Your task to perform on an android device: Open Google Chrome and click the shortcut for Amazon.com Image 0: 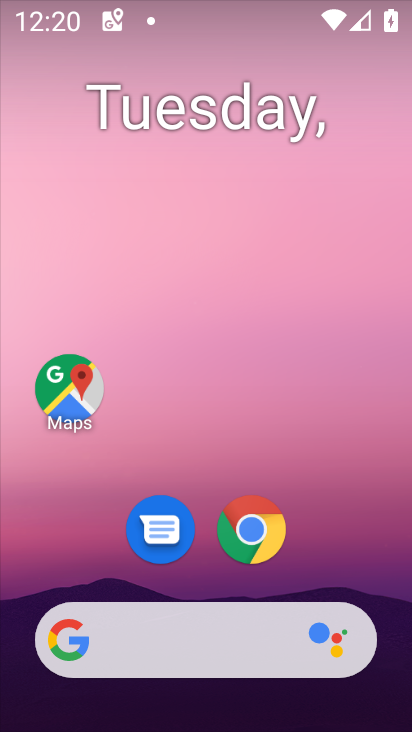
Step 0: drag from (237, 679) to (308, 204)
Your task to perform on an android device: Open Google Chrome and click the shortcut for Amazon.com Image 1: 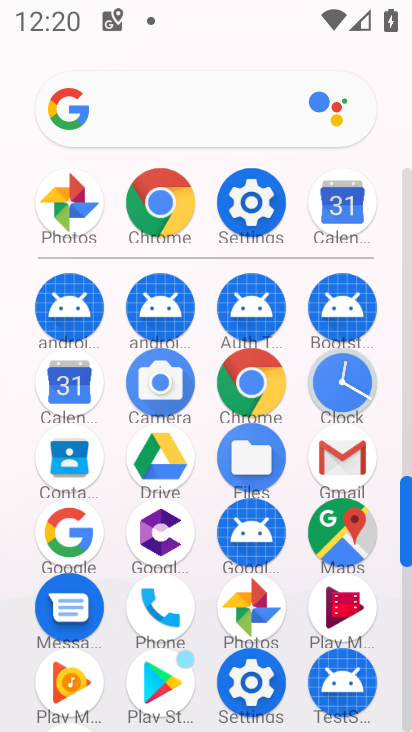
Step 1: click (164, 188)
Your task to perform on an android device: Open Google Chrome and click the shortcut for Amazon.com Image 2: 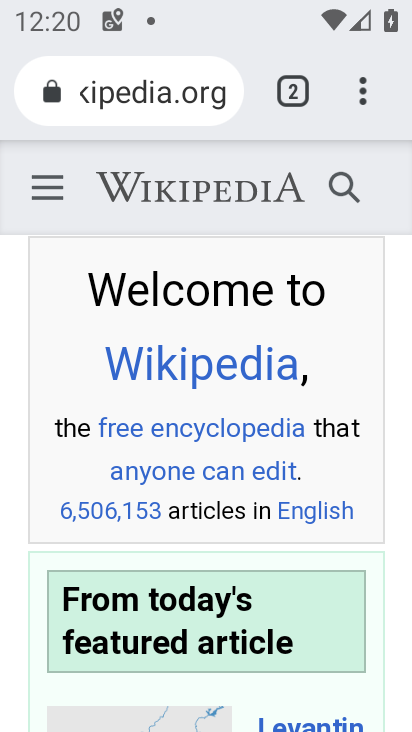
Step 2: click (304, 91)
Your task to perform on an android device: Open Google Chrome and click the shortcut for Amazon.com Image 3: 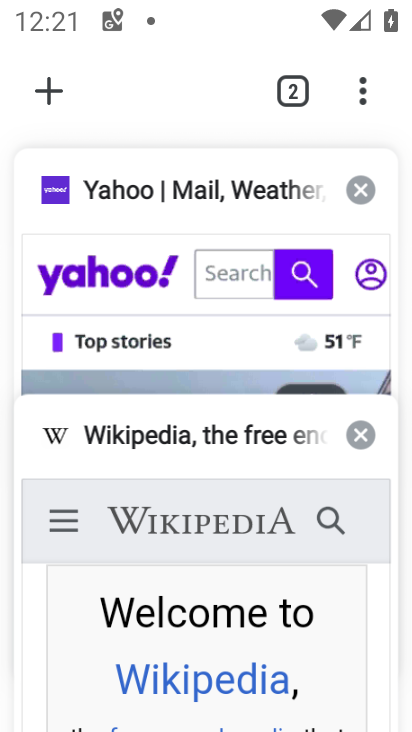
Step 3: click (370, 97)
Your task to perform on an android device: Open Google Chrome and click the shortcut for Amazon.com Image 4: 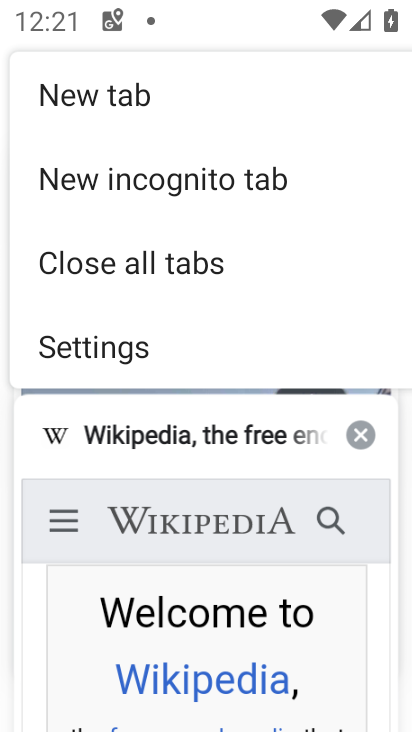
Step 4: click (105, 100)
Your task to perform on an android device: Open Google Chrome and click the shortcut for Amazon.com Image 5: 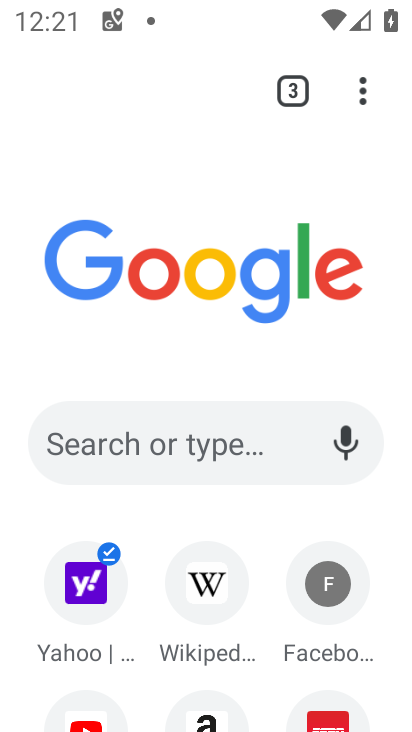
Step 5: click (208, 692)
Your task to perform on an android device: Open Google Chrome and click the shortcut for Amazon.com Image 6: 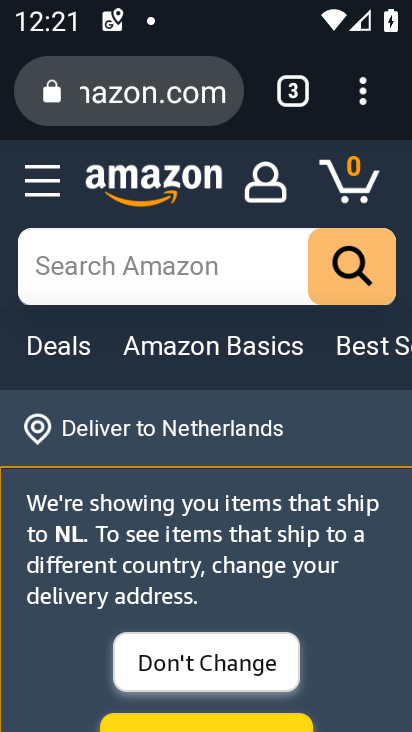
Step 6: click (341, 79)
Your task to perform on an android device: Open Google Chrome and click the shortcut for Amazon.com Image 7: 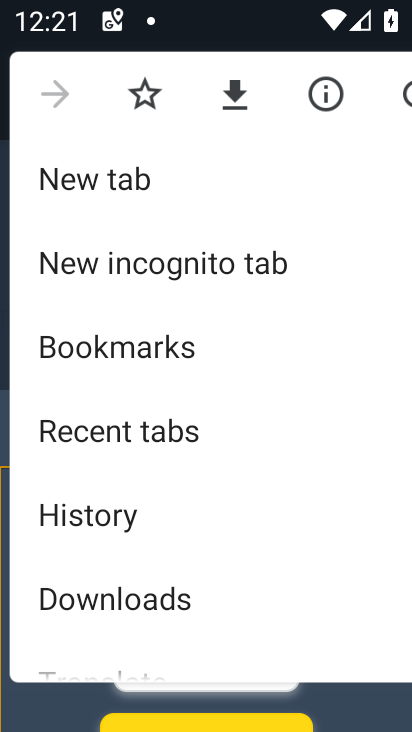
Step 7: drag from (171, 516) to (234, 258)
Your task to perform on an android device: Open Google Chrome and click the shortcut for Amazon.com Image 8: 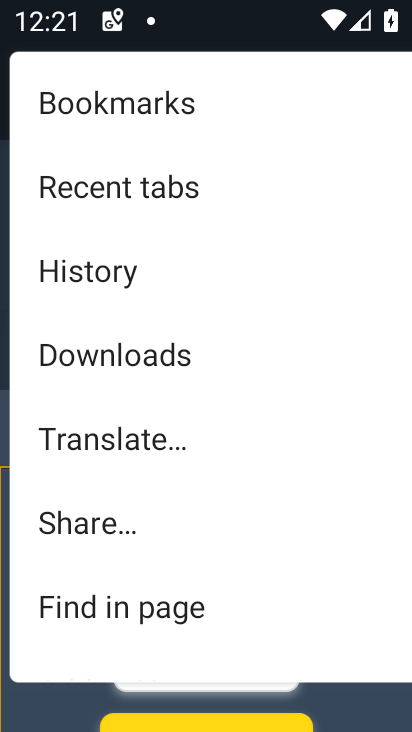
Step 8: drag from (188, 582) to (214, 452)
Your task to perform on an android device: Open Google Chrome and click the shortcut for Amazon.com Image 9: 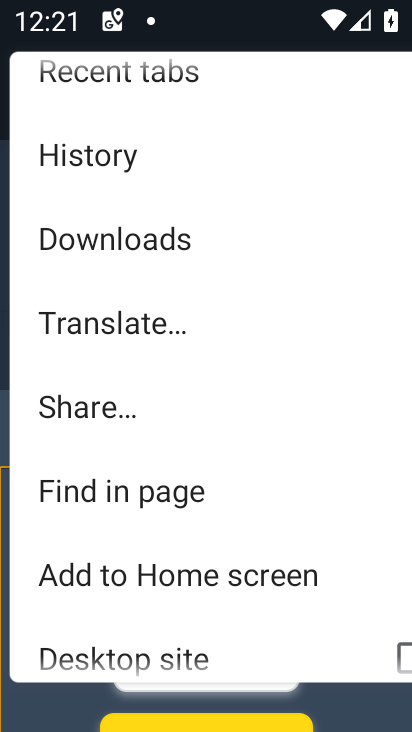
Step 9: click (178, 574)
Your task to perform on an android device: Open Google Chrome and click the shortcut for Amazon.com Image 10: 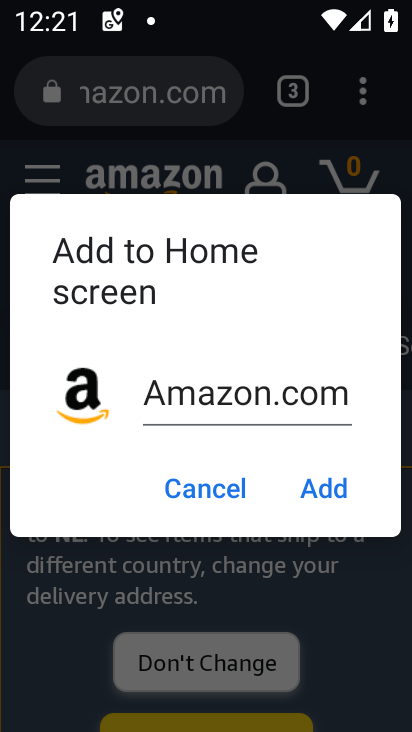
Step 10: click (321, 484)
Your task to perform on an android device: Open Google Chrome and click the shortcut for Amazon.com Image 11: 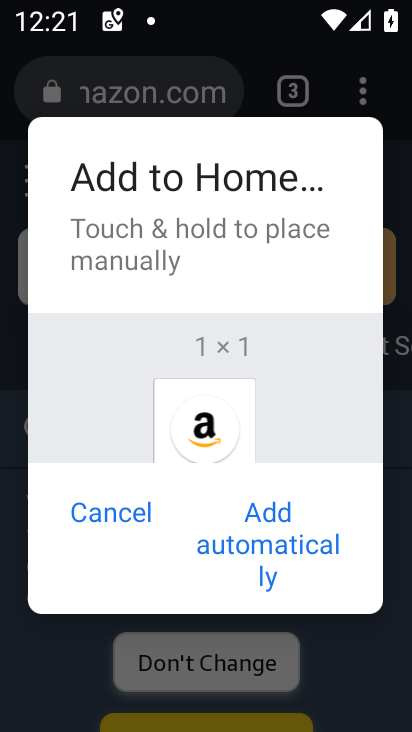
Step 11: task complete